Your task to perform on an android device: Show me recent news Image 0: 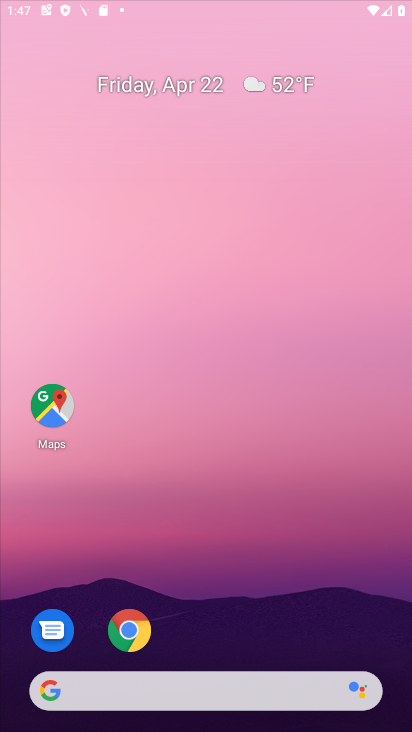
Step 0: click (285, 193)
Your task to perform on an android device: Show me recent news Image 1: 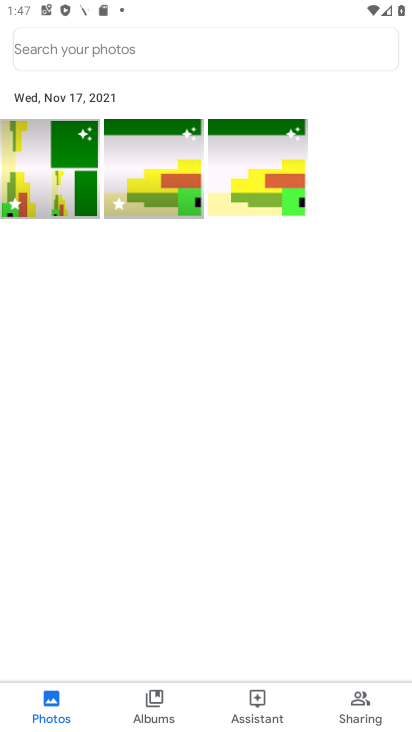
Step 1: task complete